Your task to perform on an android device: change text size in settings app Image 0: 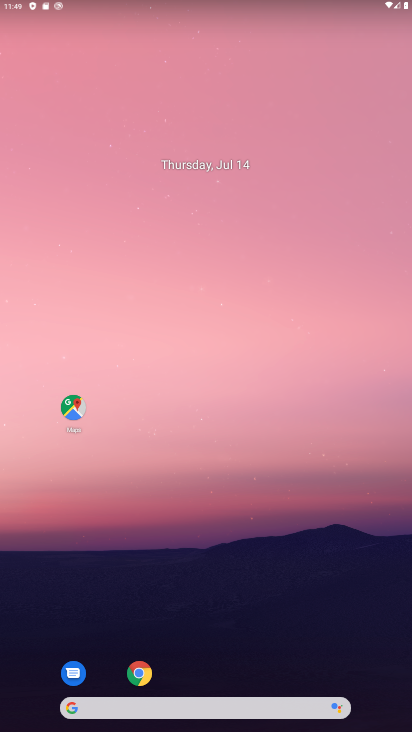
Step 0: drag from (255, 637) to (222, 140)
Your task to perform on an android device: change text size in settings app Image 1: 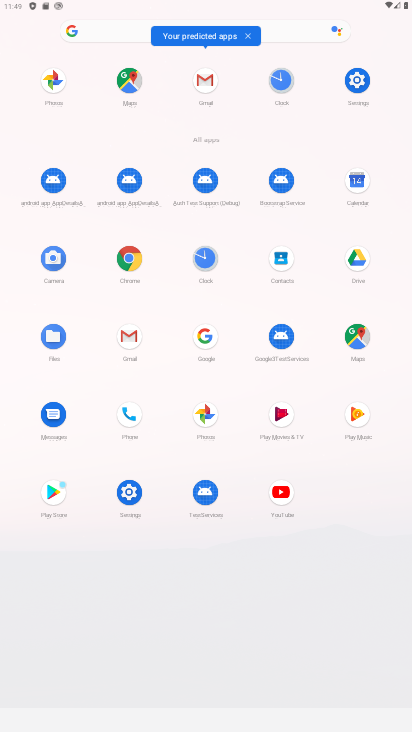
Step 1: click (359, 82)
Your task to perform on an android device: change text size in settings app Image 2: 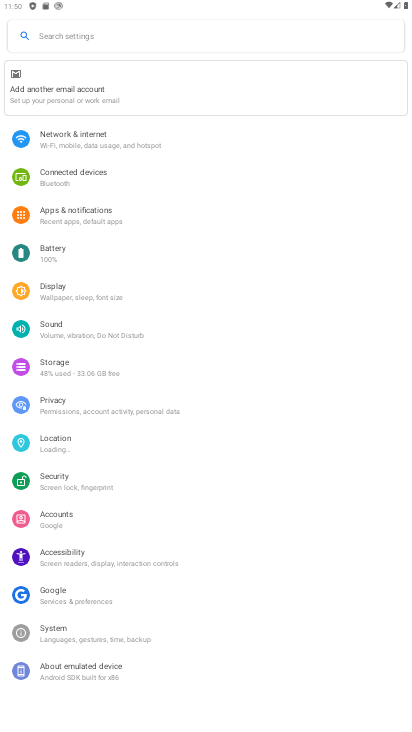
Step 2: click (100, 283)
Your task to perform on an android device: change text size in settings app Image 3: 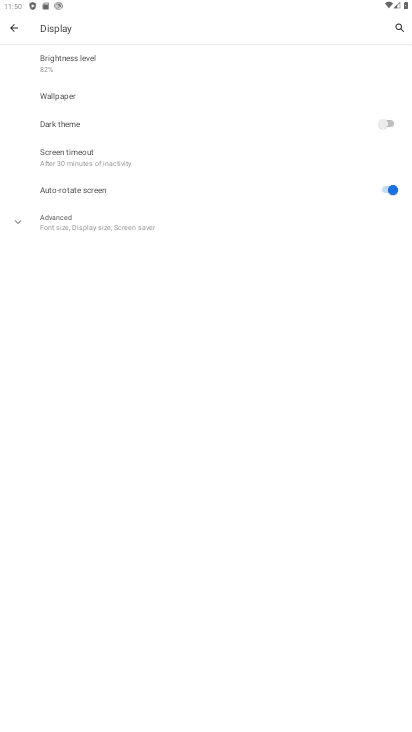
Step 3: click (104, 226)
Your task to perform on an android device: change text size in settings app Image 4: 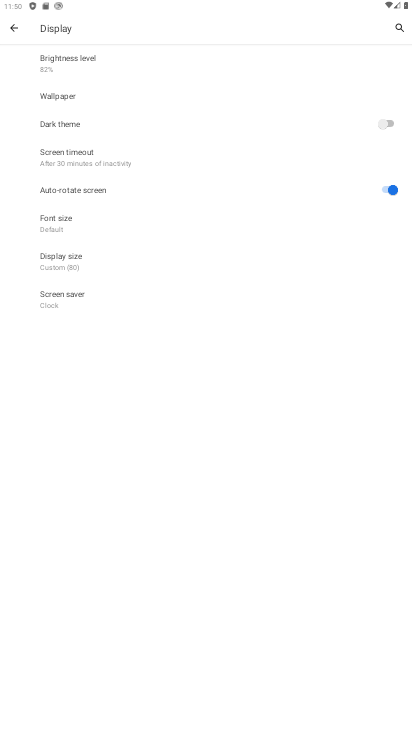
Step 4: click (104, 228)
Your task to perform on an android device: change text size in settings app Image 5: 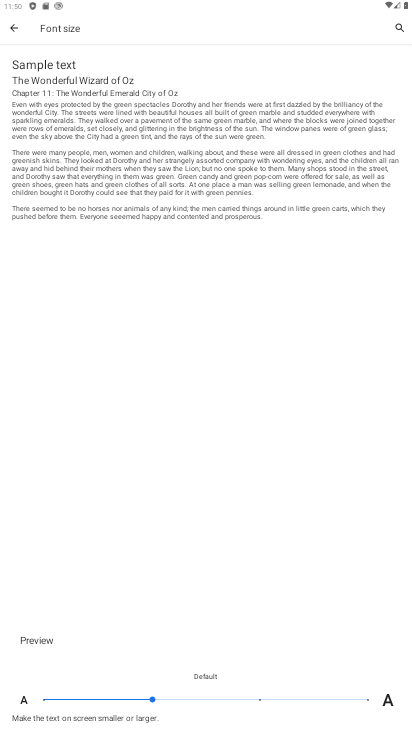
Step 5: click (260, 699)
Your task to perform on an android device: change text size in settings app Image 6: 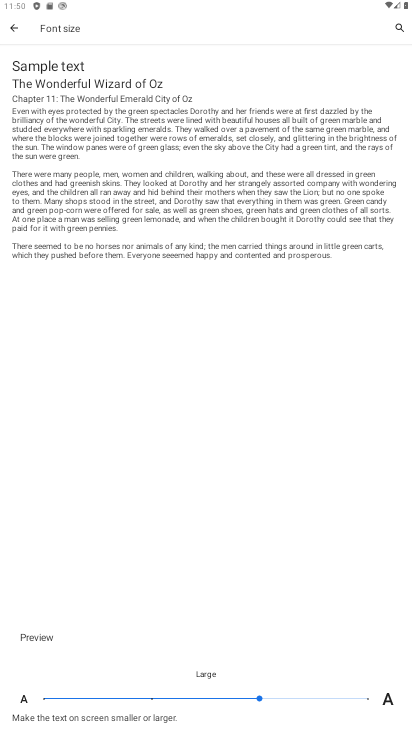
Step 6: click (372, 703)
Your task to perform on an android device: change text size in settings app Image 7: 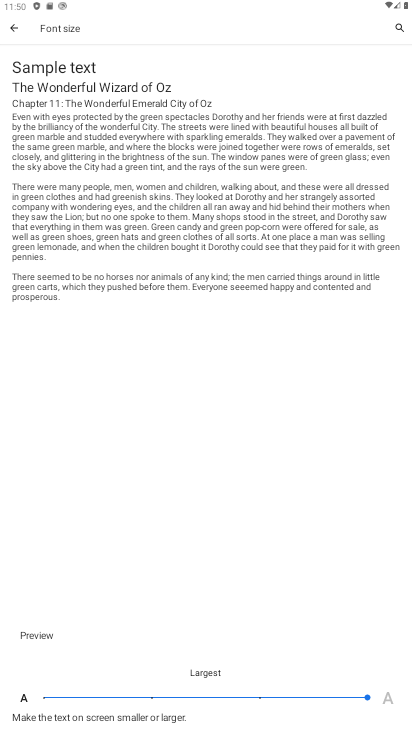
Step 7: task complete